Your task to perform on an android device: clear all cookies in the chrome app Image 0: 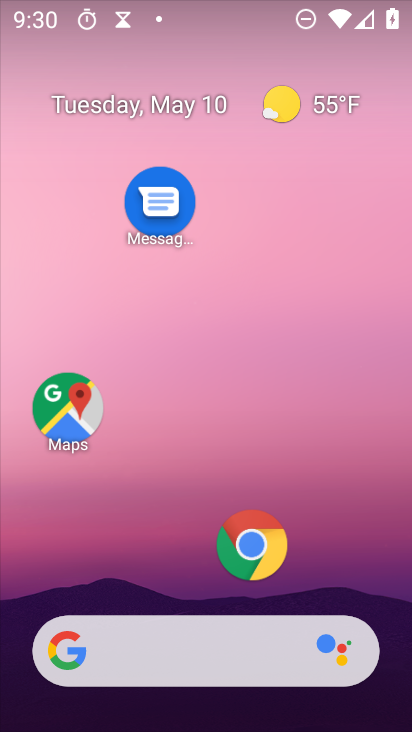
Step 0: click (238, 562)
Your task to perform on an android device: clear all cookies in the chrome app Image 1: 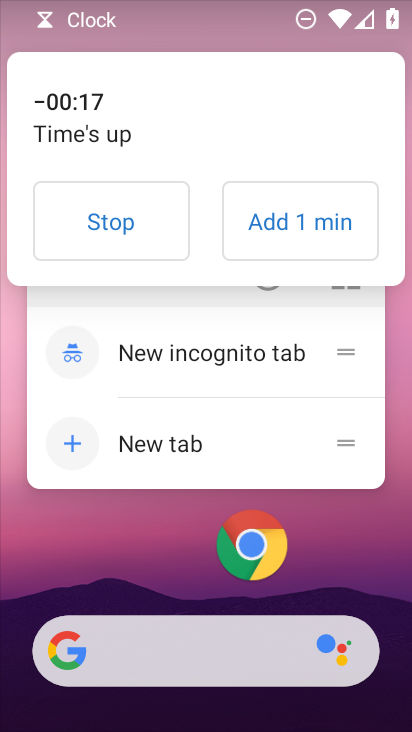
Step 1: click (89, 242)
Your task to perform on an android device: clear all cookies in the chrome app Image 2: 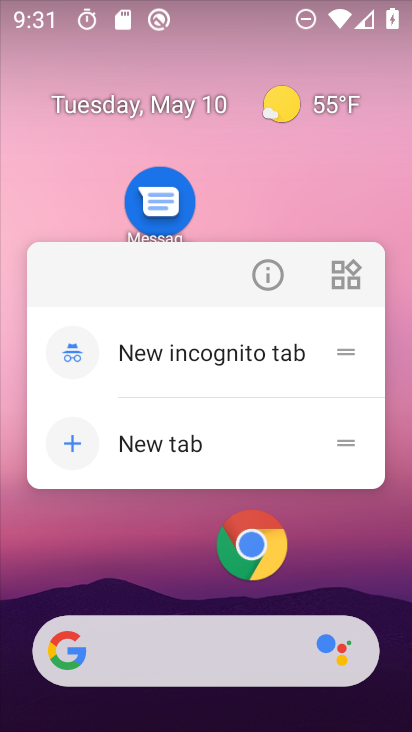
Step 2: click (284, 551)
Your task to perform on an android device: clear all cookies in the chrome app Image 3: 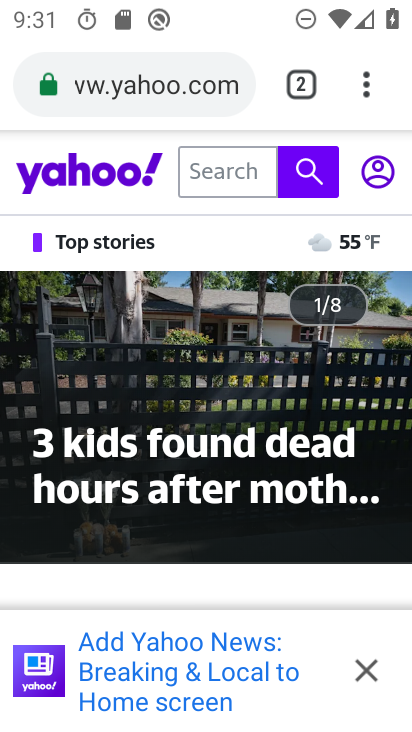
Step 3: drag from (356, 89) to (114, 494)
Your task to perform on an android device: clear all cookies in the chrome app Image 4: 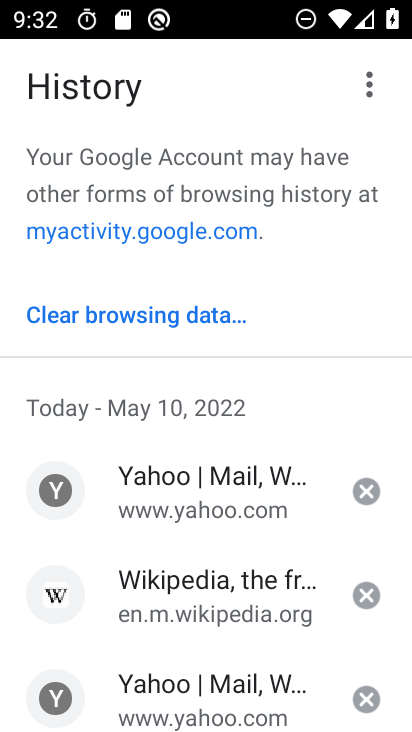
Step 4: click (120, 312)
Your task to perform on an android device: clear all cookies in the chrome app Image 5: 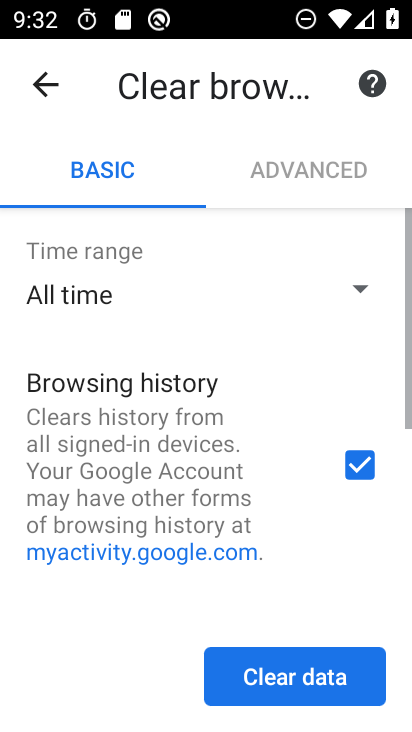
Step 5: drag from (218, 561) to (276, 267)
Your task to perform on an android device: clear all cookies in the chrome app Image 6: 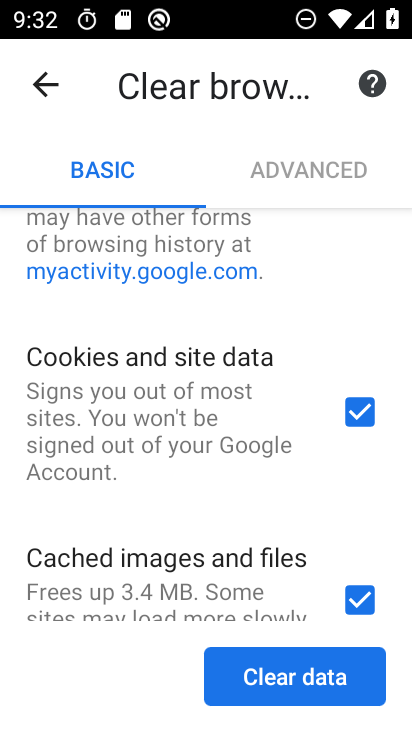
Step 6: click (217, 659)
Your task to perform on an android device: clear all cookies in the chrome app Image 7: 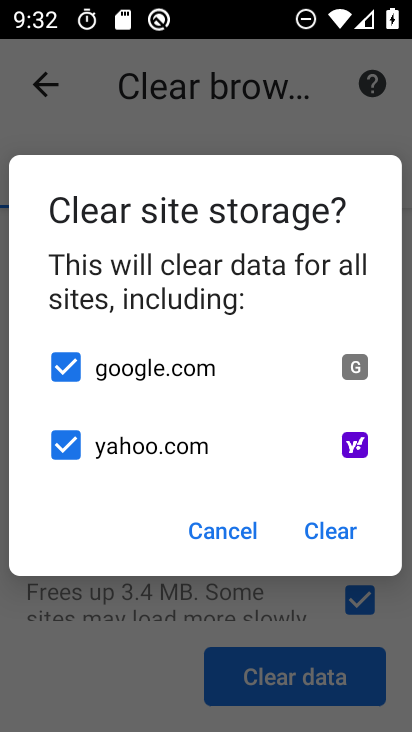
Step 7: click (332, 521)
Your task to perform on an android device: clear all cookies in the chrome app Image 8: 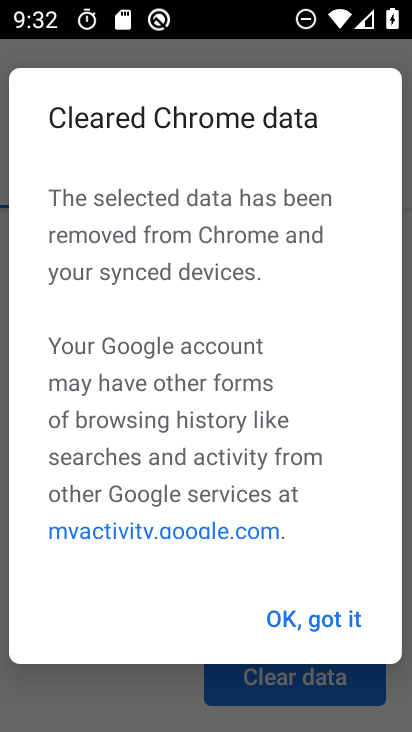
Step 8: click (314, 631)
Your task to perform on an android device: clear all cookies in the chrome app Image 9: 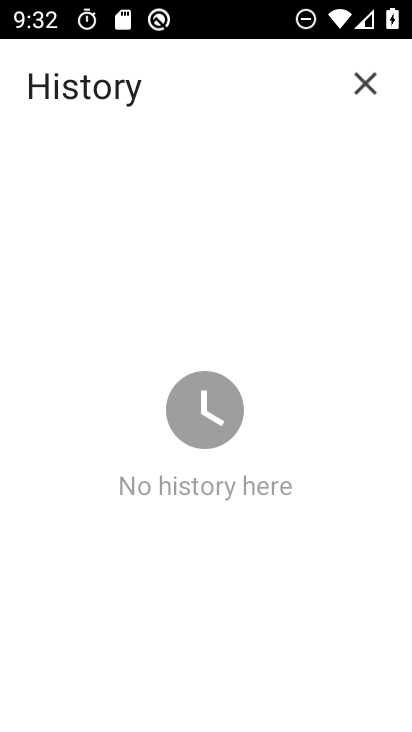
Step 9: task complete